Your task to perform on an android device: Go to Google maps Image 0: 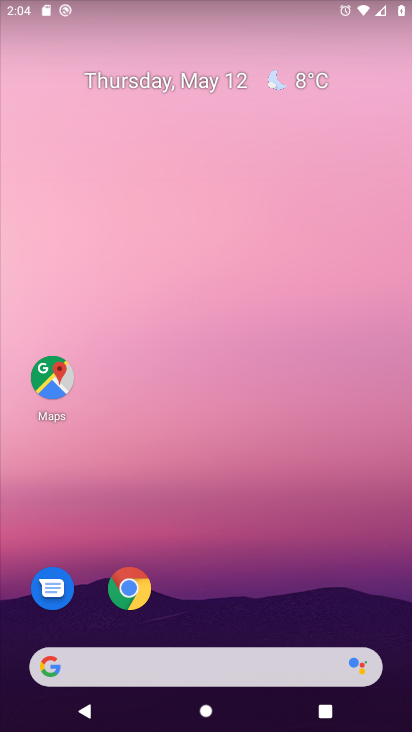
Step 0: drag from (271, 514) to (3, 291)
Your task to perform on an android device: Go to Google maps Image 1: 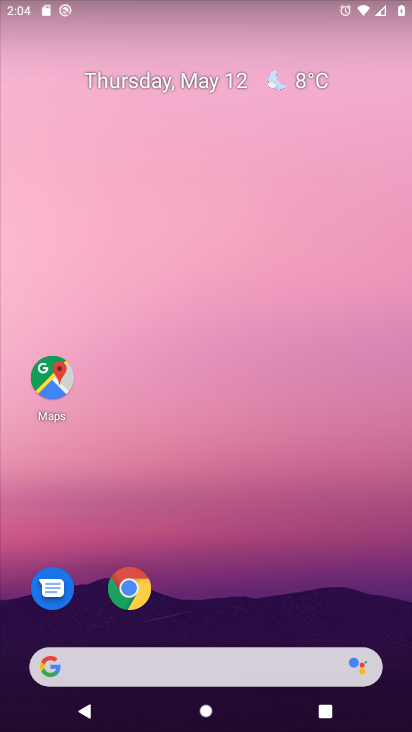
Step 1: drag from (258, 552) to (279, 48)
Your task to perform on an android device: Go to Google maps Image 2: 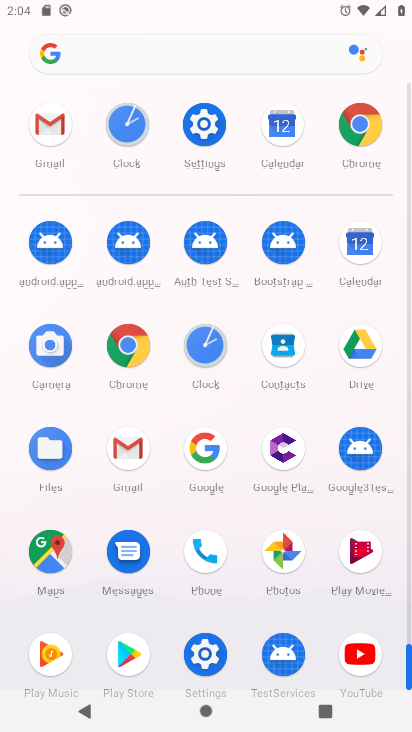
Step 2: click (42, 556)
Your task to perform on an android device: Go to Google maps Image 3: 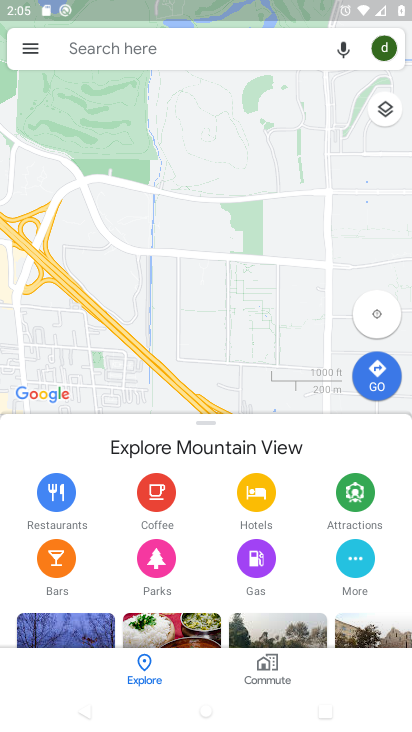
Step 3: task complete